Your task to perform on an android device: Go to location settings Image 0: 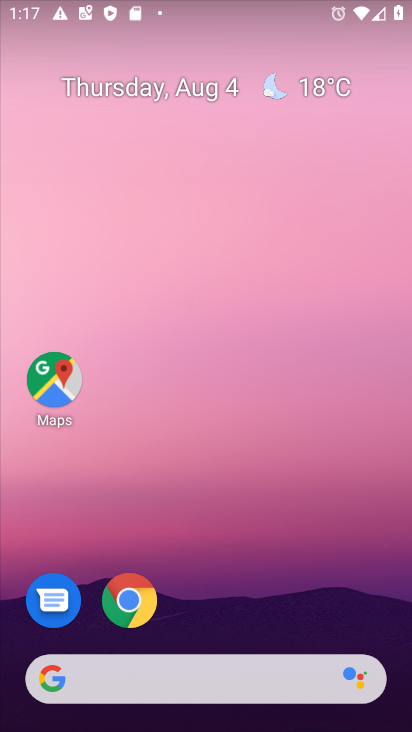
Step 0: drag from (131, 692) to (314, 161)
Your task to perform on an android device: Go to location settings Image 1: 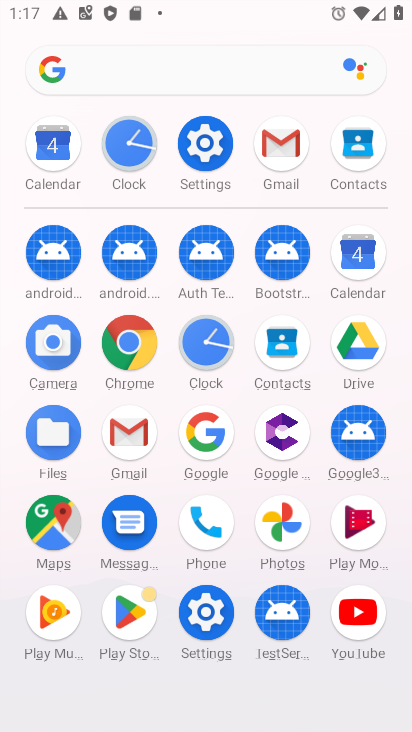
Step 1: click (213, 133)
Your task to perform on an android device: Go to location settings Image 2: 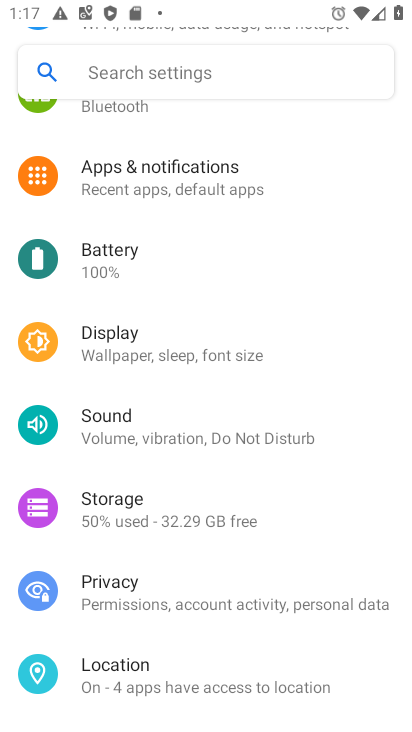
Step 2: click (167, 672)
Your task to perform on an android device: Go to location settings Image 3: 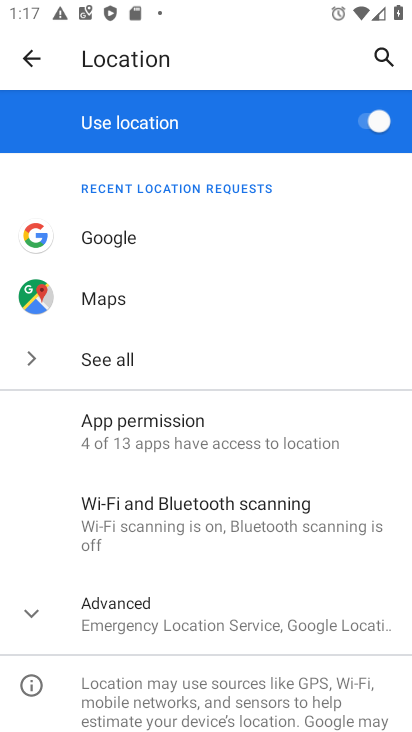
Step 3: task complete